Your task to perform on an android device: refresh tabs in the chrome app Image 0: 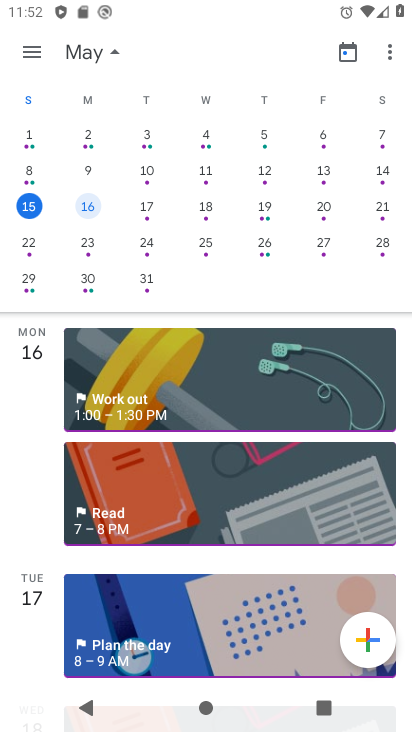
Step 0: press home button
Your task to perform on an android device: refresh tabs in the chrome app Image 1: 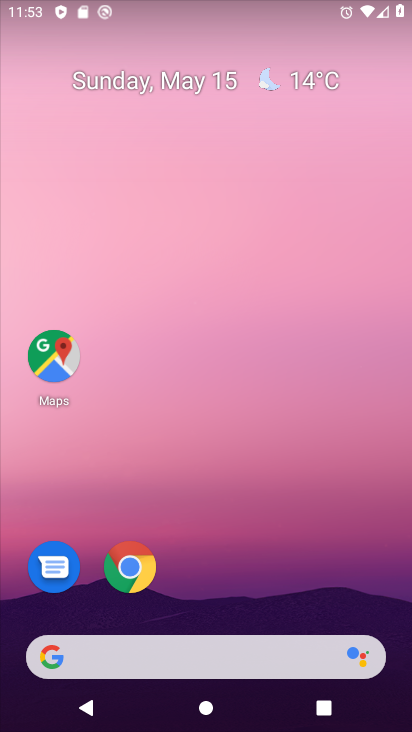
Step 1: click (120, 570)
Your task to perform on an android device: refresh tabs in the chrome app Image 2: 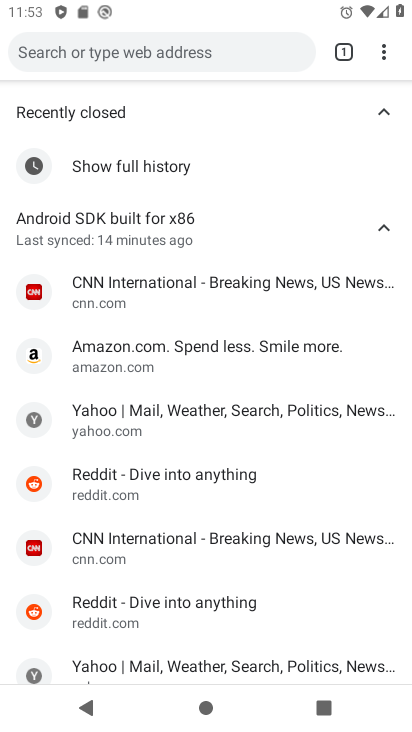
Step 2: click (392, 53)
Your task to perform on an android device: refresh tabs in the chrome app Image 3: 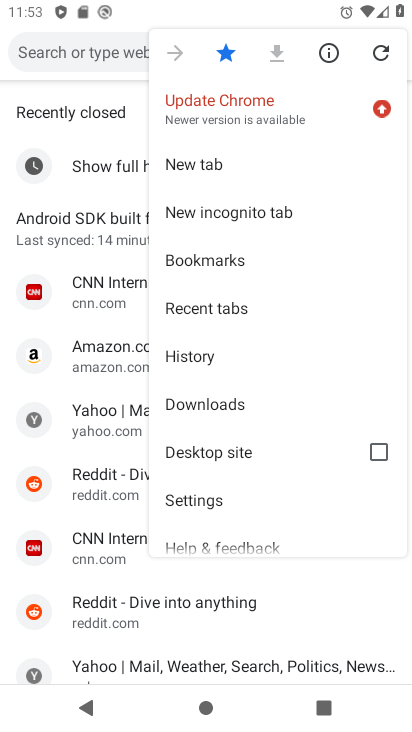
Step 3: click (381, 51)
Your task to perform on an android device: refresh tabs in the chrome app Image 4: 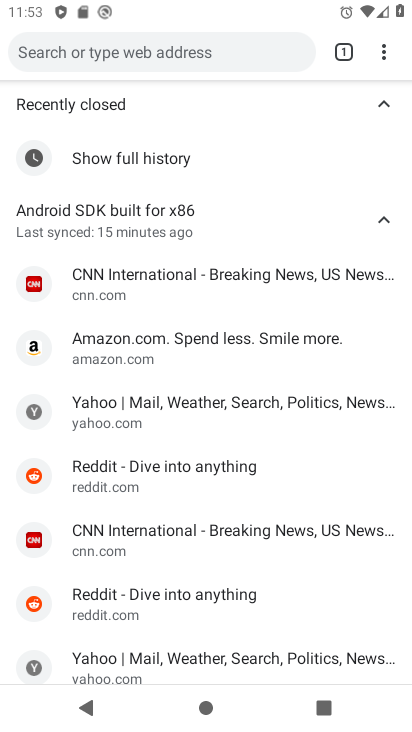
Step 4: task complete